Your task to perform on an android device: turn on translation in the chrome app Image 0: 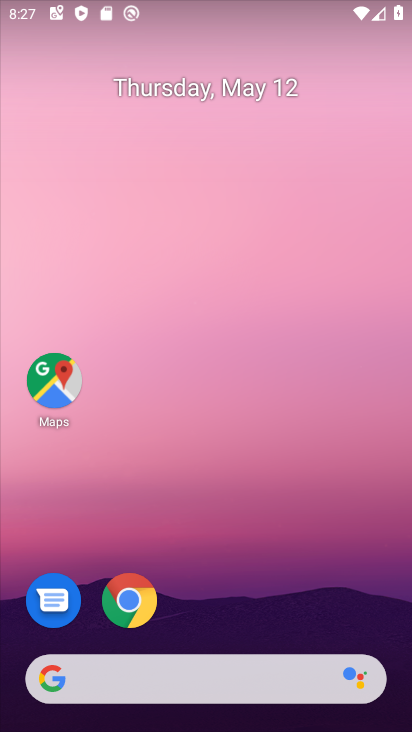
Step 0: click (125, 591)
Your task to perform on an android device: turn on translation in the chrome app Image 1: 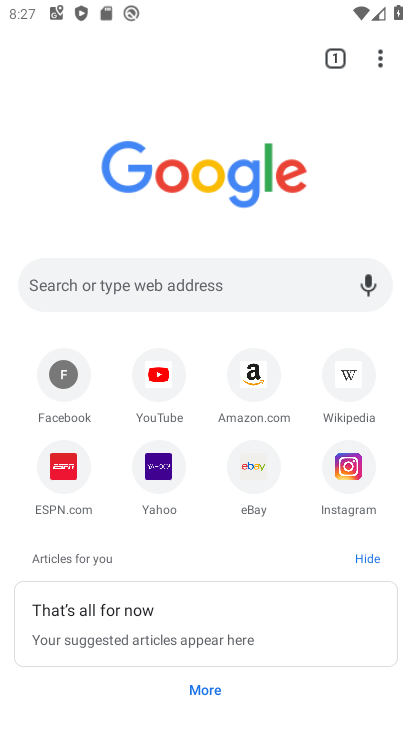
Step 1: click (382, 54)
Your task to perform on an android device: turn on translation in the chrome app Image 2: 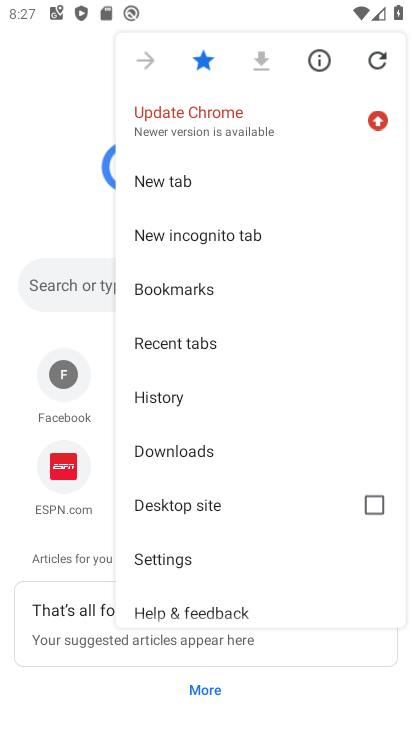
Step 2: click (179, 560)
Your task to perform on an android device: turn on translation in the chrome app Image 3: 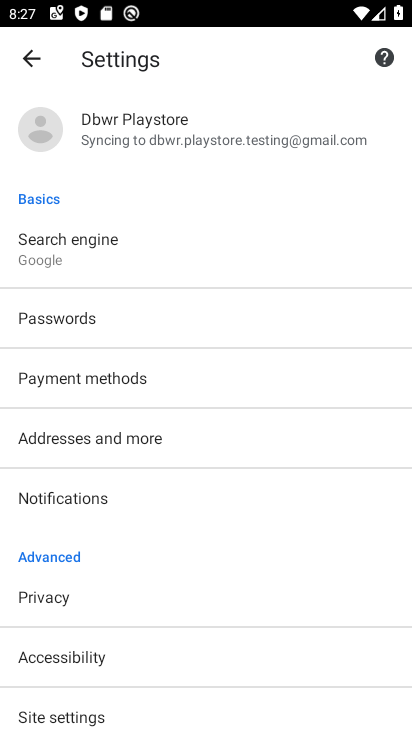
Step 3: drag from (133, 660) to (167, 395)
Your task to perform on an android device: turn on translation in the chrome app Image 4: 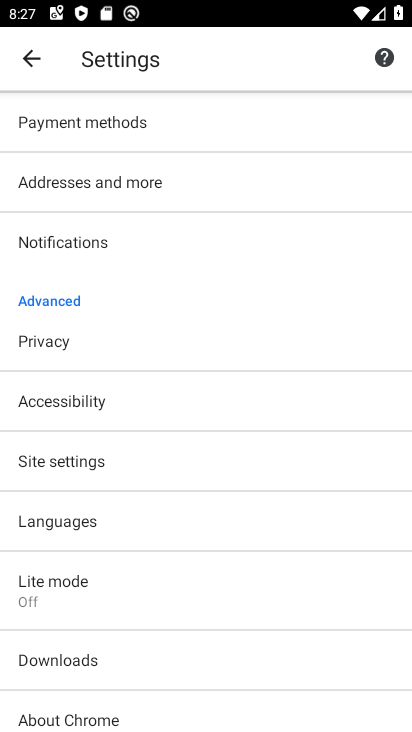
Step 4: click (95, 518)
Your task to perform on an android device: turn on translation in the chrome app Image 5: 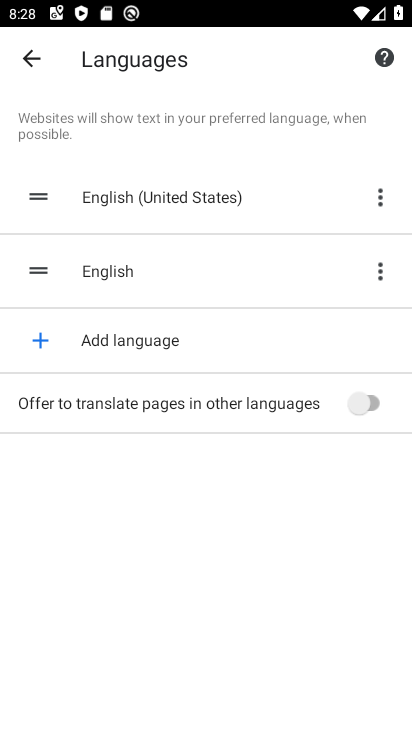
Step 5: click (375, 412)
Your task to perform on an android device: turn on translation in the chrome app Image 6: 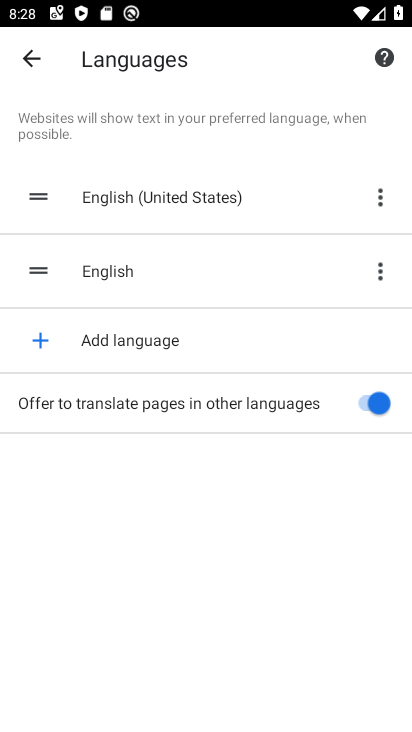
Step 6: task complete